Your task to perform on an android device: Toggle the flashlight Image 0: 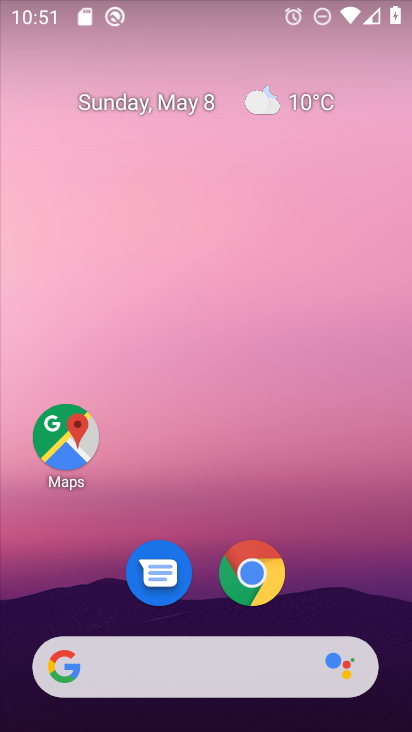
Step 0: drag from (326, 2) to (390, 713)
Your task to perform on an android device: Toggle the flashlight Image 1: 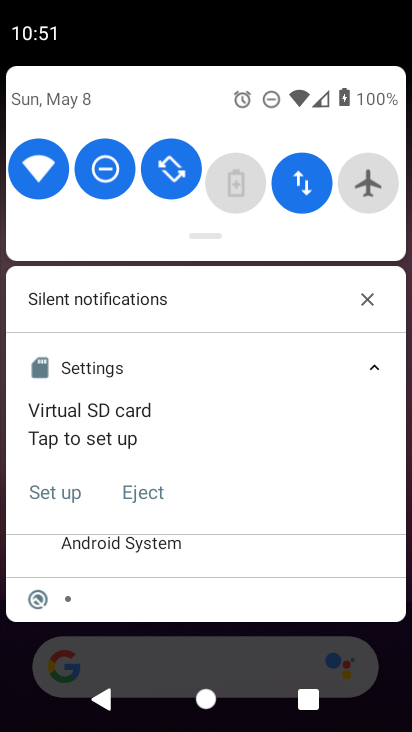
Step 1: task complete